Your task to perform on an android device: allow cookies in the chrome app Image 0: 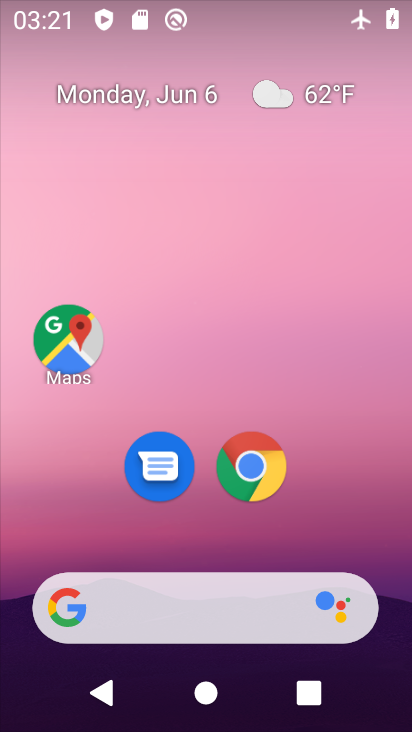
Step 0: click (248, 462)
Your task to perform on an android device: allow cookies in the chrome app Image 1: 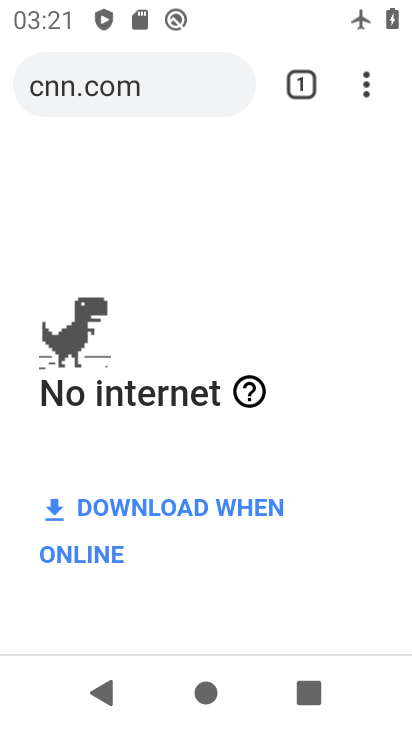
Step 1: task complete